Your task to perform on an android device: add a contact in the contacts app Image 0: 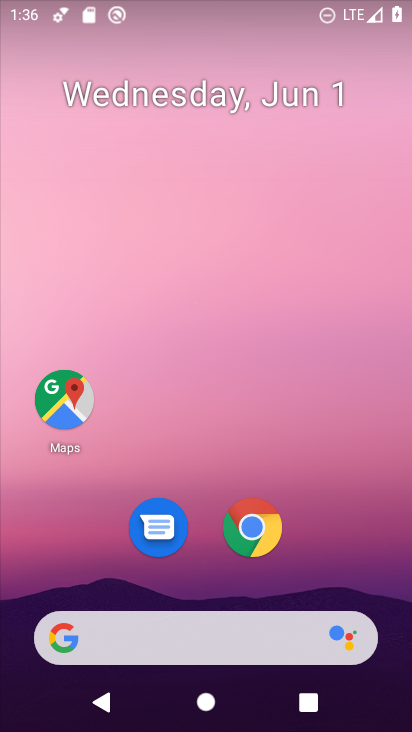
Step 0: drag from (241, 658) to (229, 55)
Your task to perform on an android device: add a contact in the contacts app Image 1: 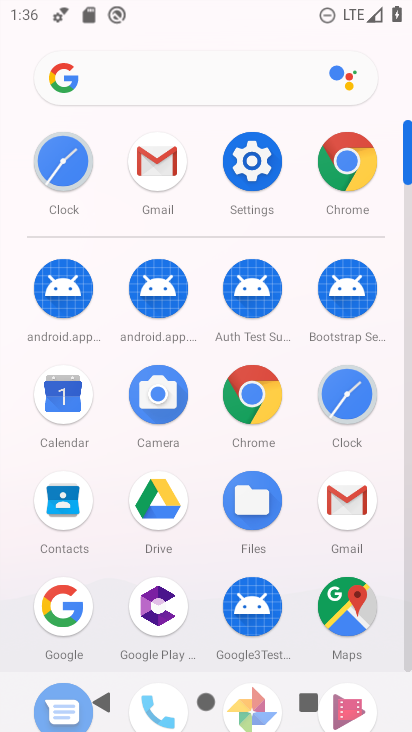
Step 1: click (53, 515)
Your task to perform on an android device: add a contact in the contacts app Image 2: 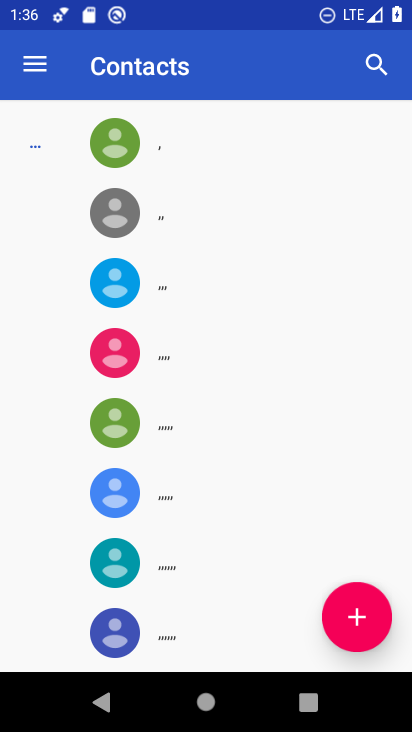
Step 2: click (350, 618)
Your task to perform on an android device: add a contact in the contacts app Image 3: 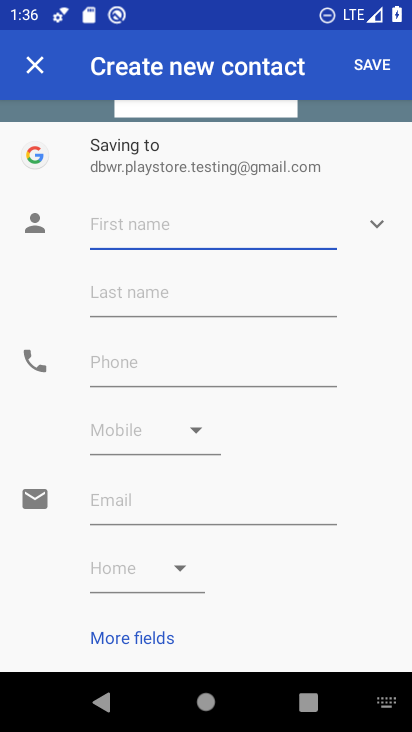
Step 3: type "dfsgfdjh"
Your task to perform on an android device: add a contact in the contacts app Image 4: 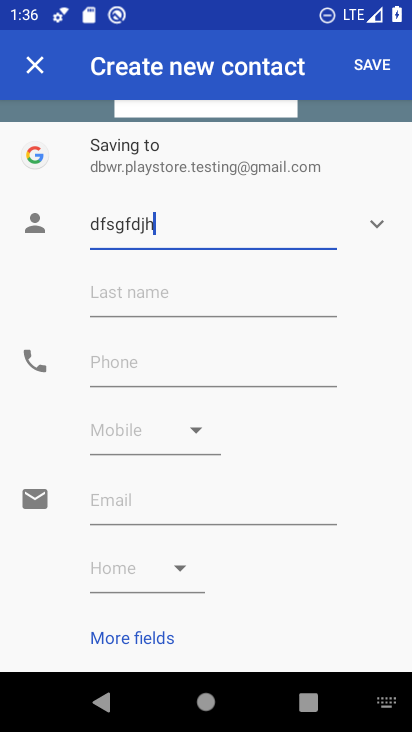
Step 4: click (200, 368)
Your task to perform on an android device: add a contact in the contacts app Image 5: 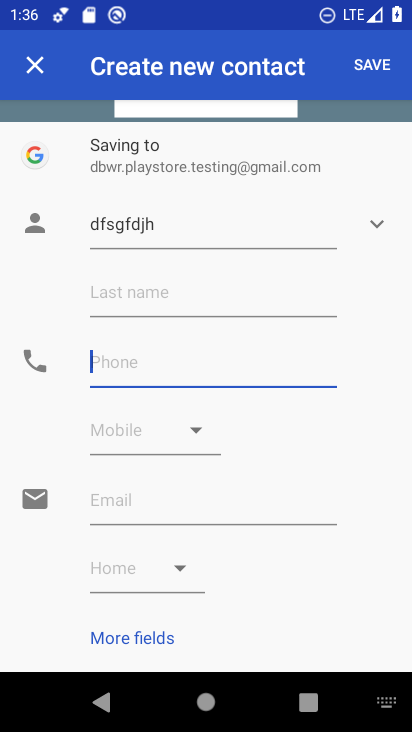
Step 5: click (200, 368)
Your task to perform on an android device: add a contact in the contacts app Image 6: 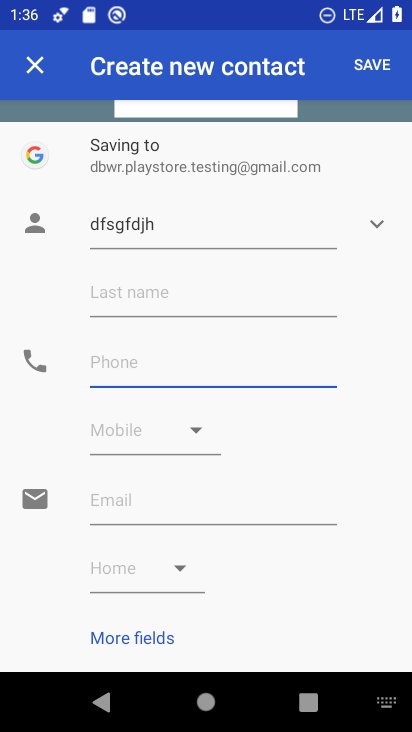
Step 6: type "90090"
Your task to perform on an android device: add a contact in the contacts app Image 7: 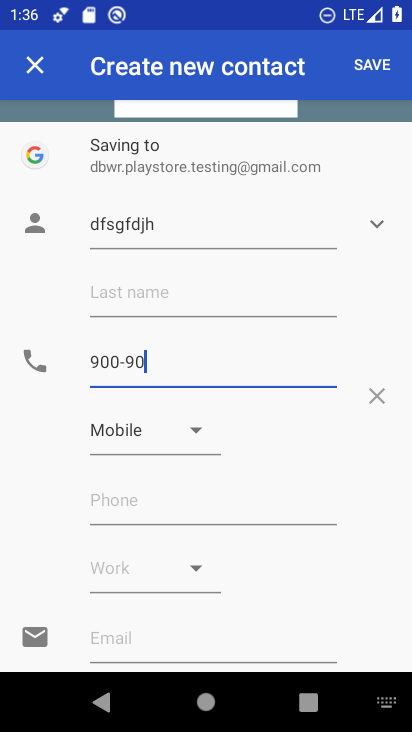
Step 7: click (372, 57)
Your task to perform on an android device: add a contact in the contacts app Image 8: 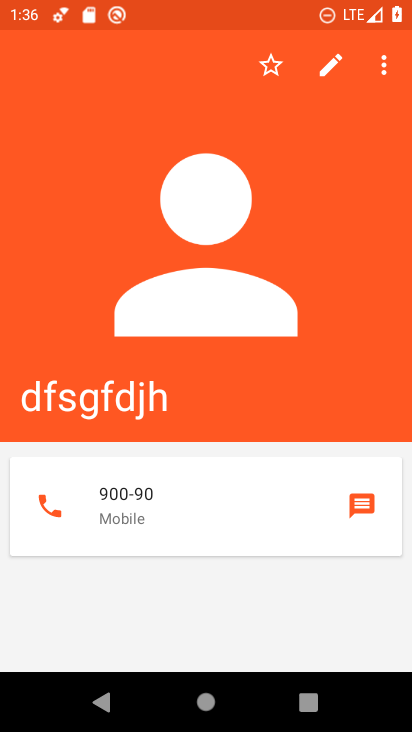
Step 8: task complete